Your task to perform on an android device: Add bose quietcomfort 35 to the cart on walmart.com Image 0: 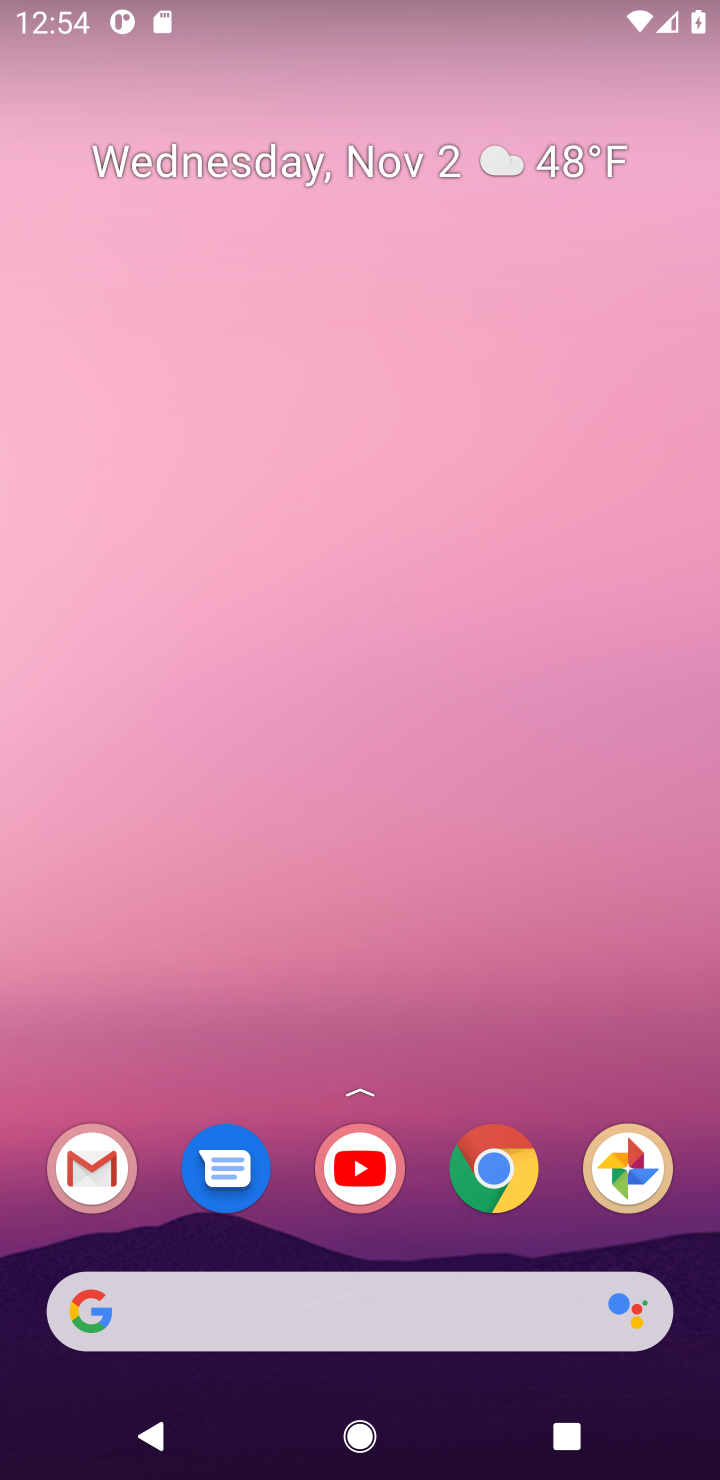
Step 0: click (443, 1294)
Your task to perform on an android device: Add bose quietcomfort 35 to the cart on walmart.com Image 1: 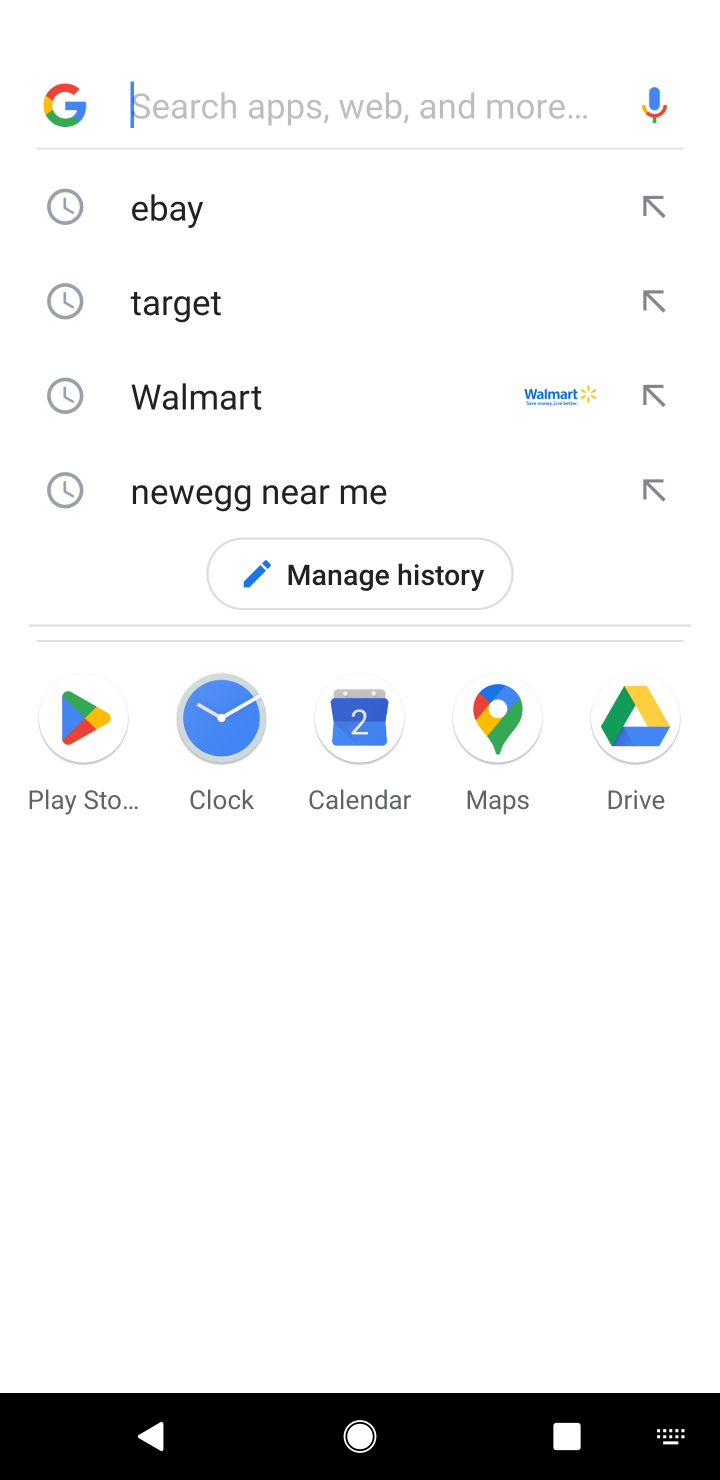
Step 1: type "walmart.com"
Your task to perform on an android device: Add bose quietcomfort 35 to the cart on walmart.com Image 2: 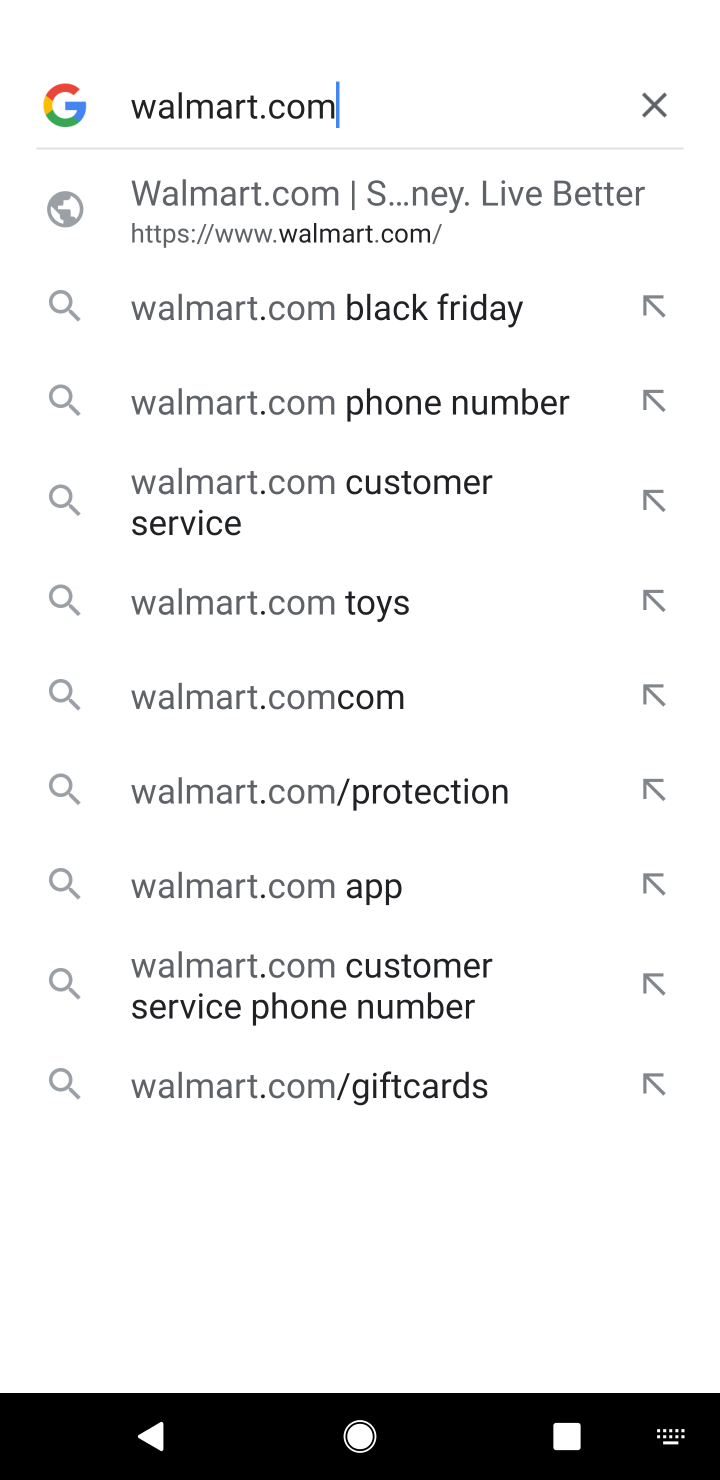
Step 2: click (394, 214)
Your task to perform on an android device: Add bose quietcomfort 35 to the cart on walmart.com Image 3: 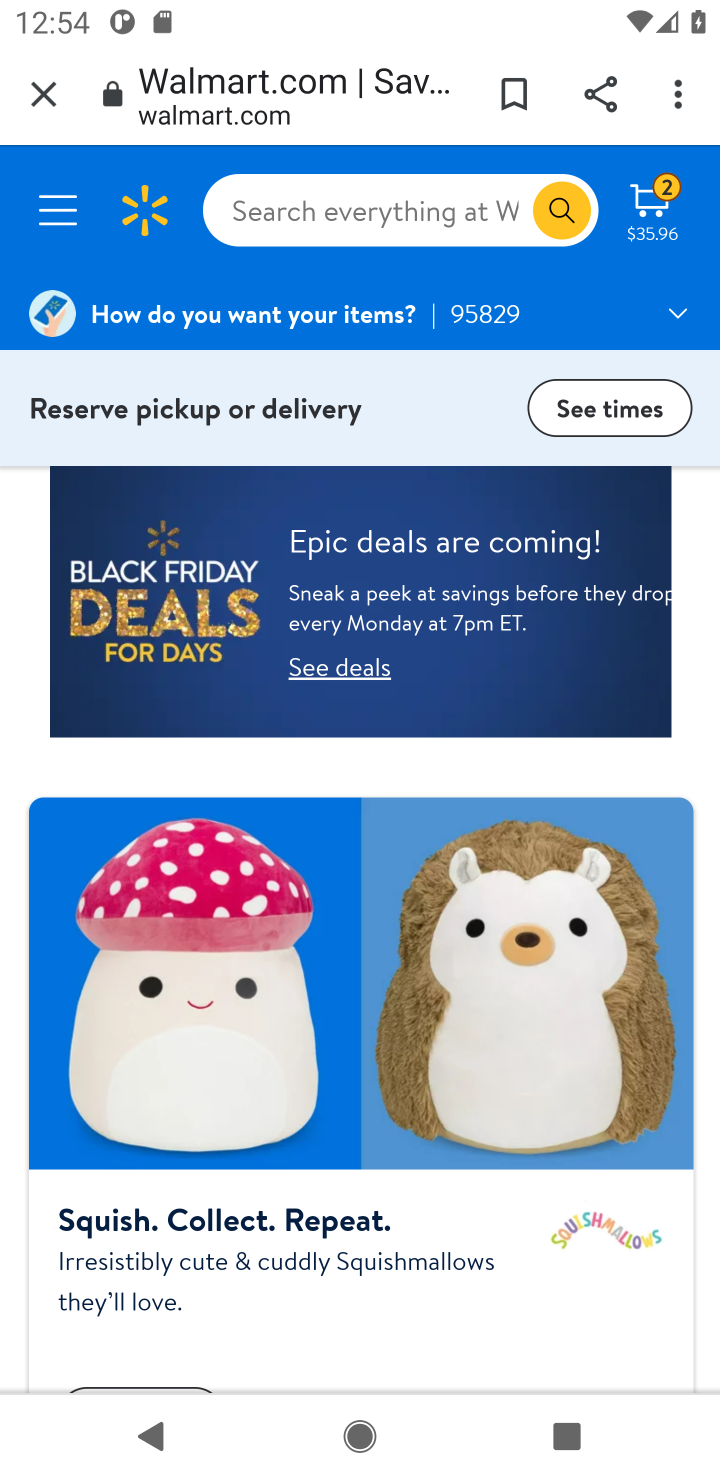
Step 3: click (394, 214)
Your task to perform on an android device: Add bose quietcomfort 35 to the cart on walmart.com Image 4: 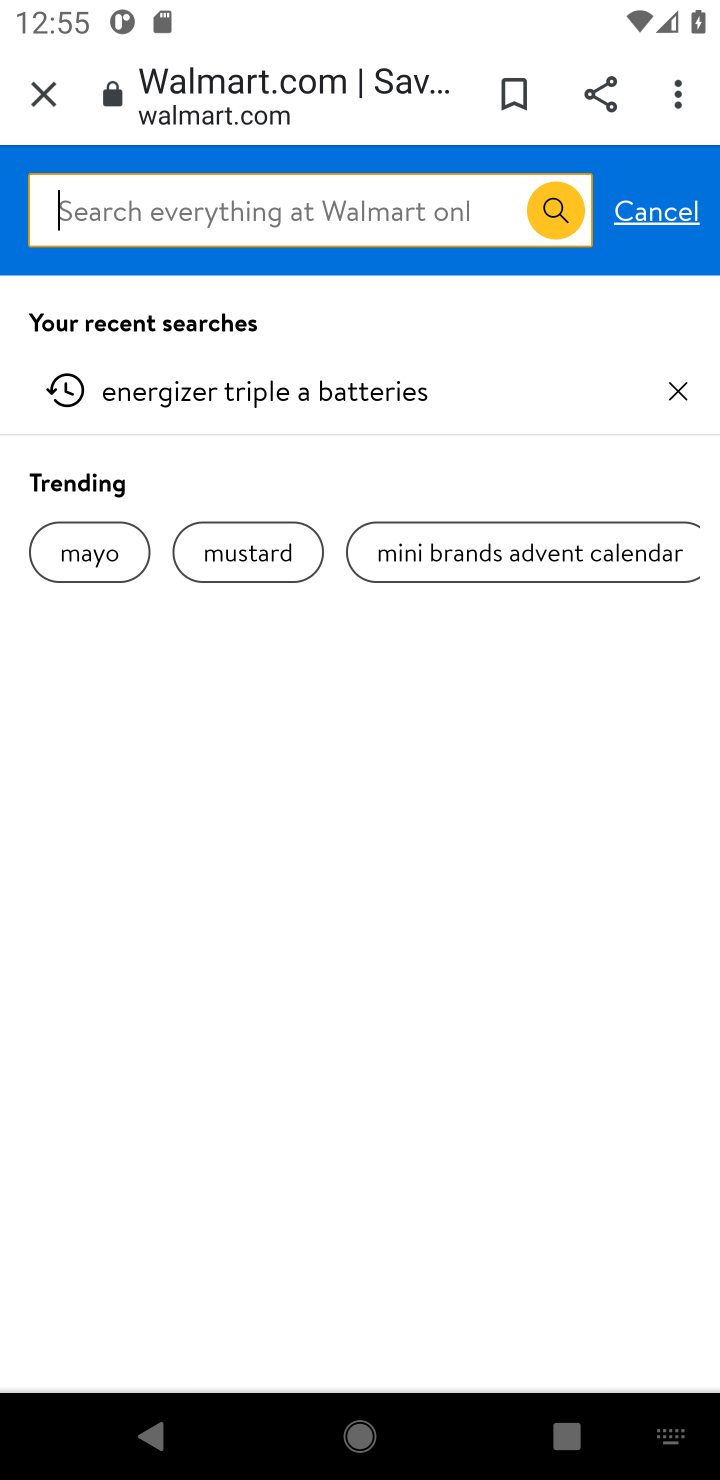
Step 4: type "bose quietcomfort 35 "
Your task to perform on an android device: Add bose quietcomfort 35 to the cart on walmart.com Image 5: 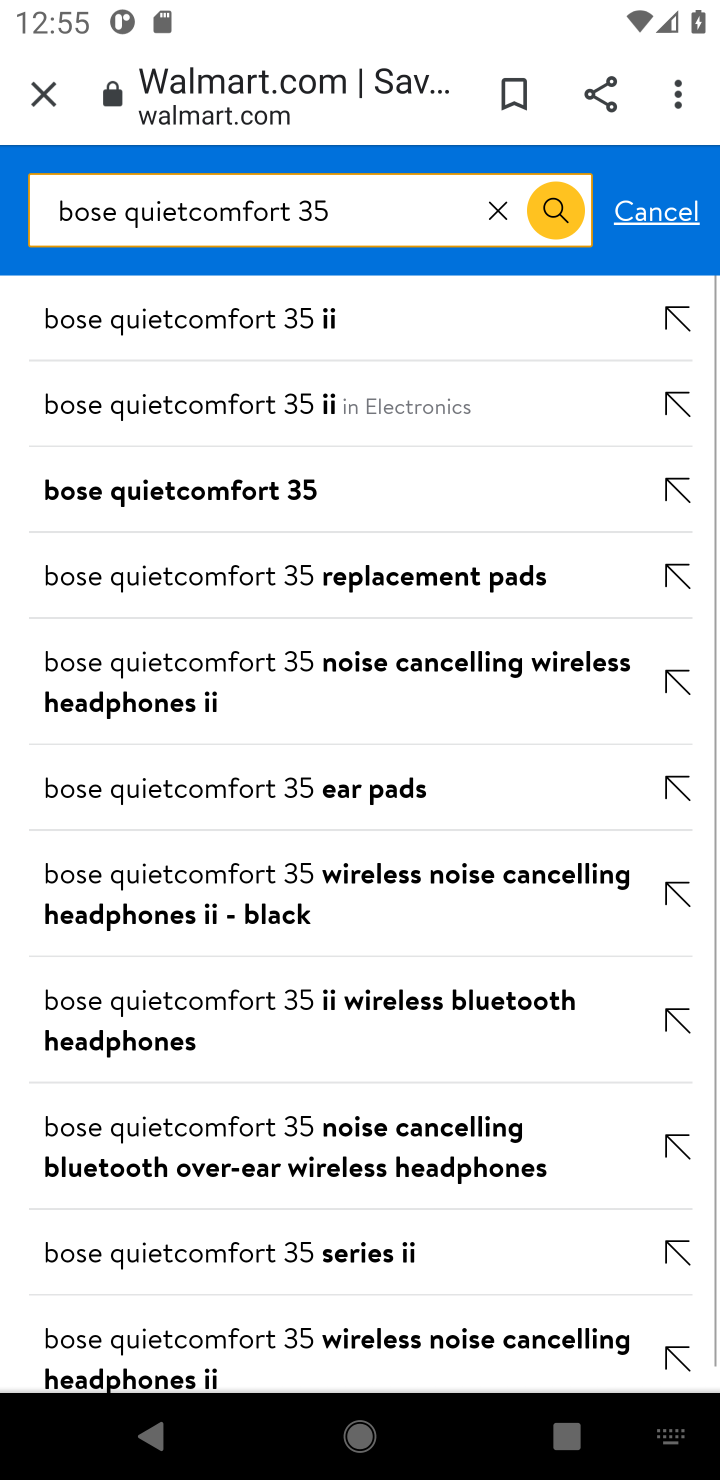
Step 5: click (307, 314)
Your task to perform on an android device: Add bose quietcomfort 35 to the cart on walmart.com Image 6: 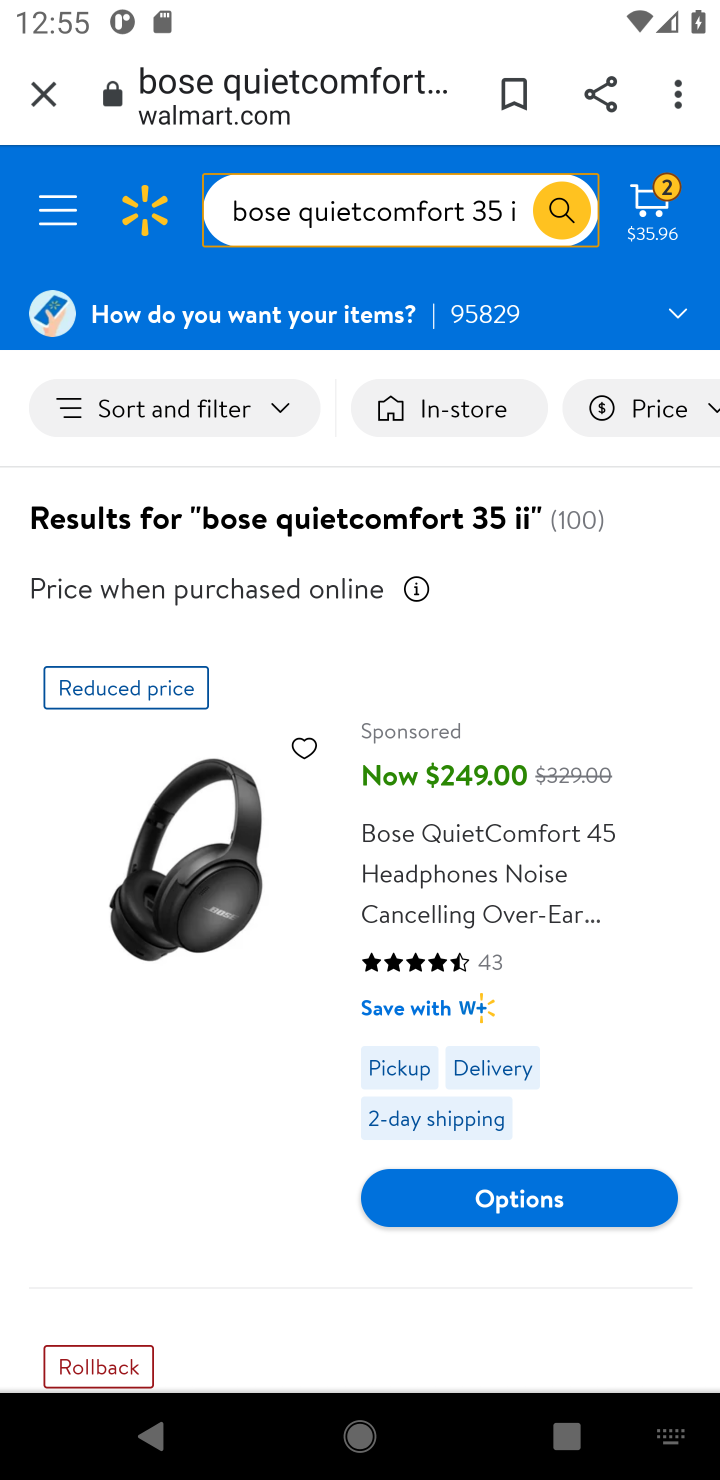
Step 6: click (464, 1206)
Your task to perform on an android device: Add bose quietcomfort 35 to the cart on walmart.com Image 7: 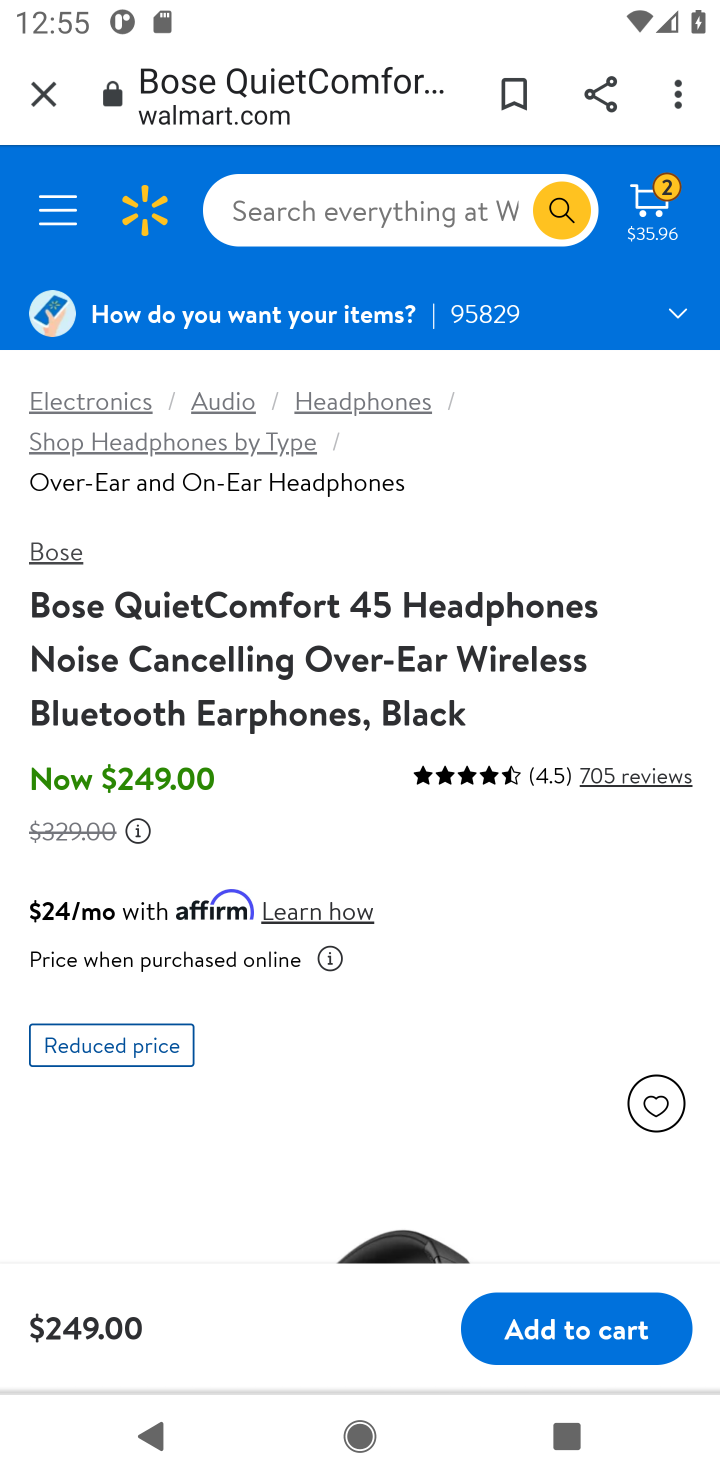
Step 7: click (519, 1326)
Your task to perform on an android device: Add bose quietcomfort 35 to the cart on walmart.com Image 8: 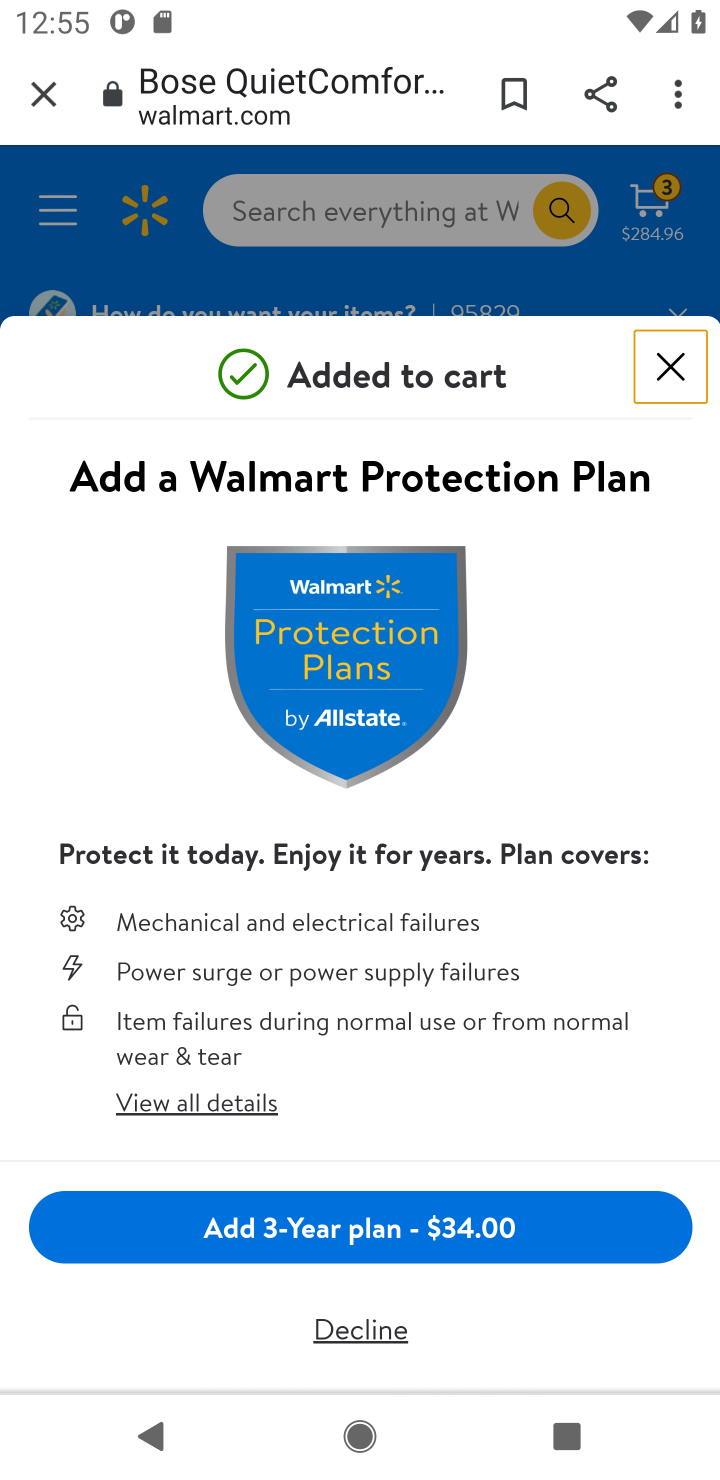
Step 8: click (363, 1337)
Your task to perform on an android device: Add bose quietcomfort 35 to the cart on walmart.com Image 9: 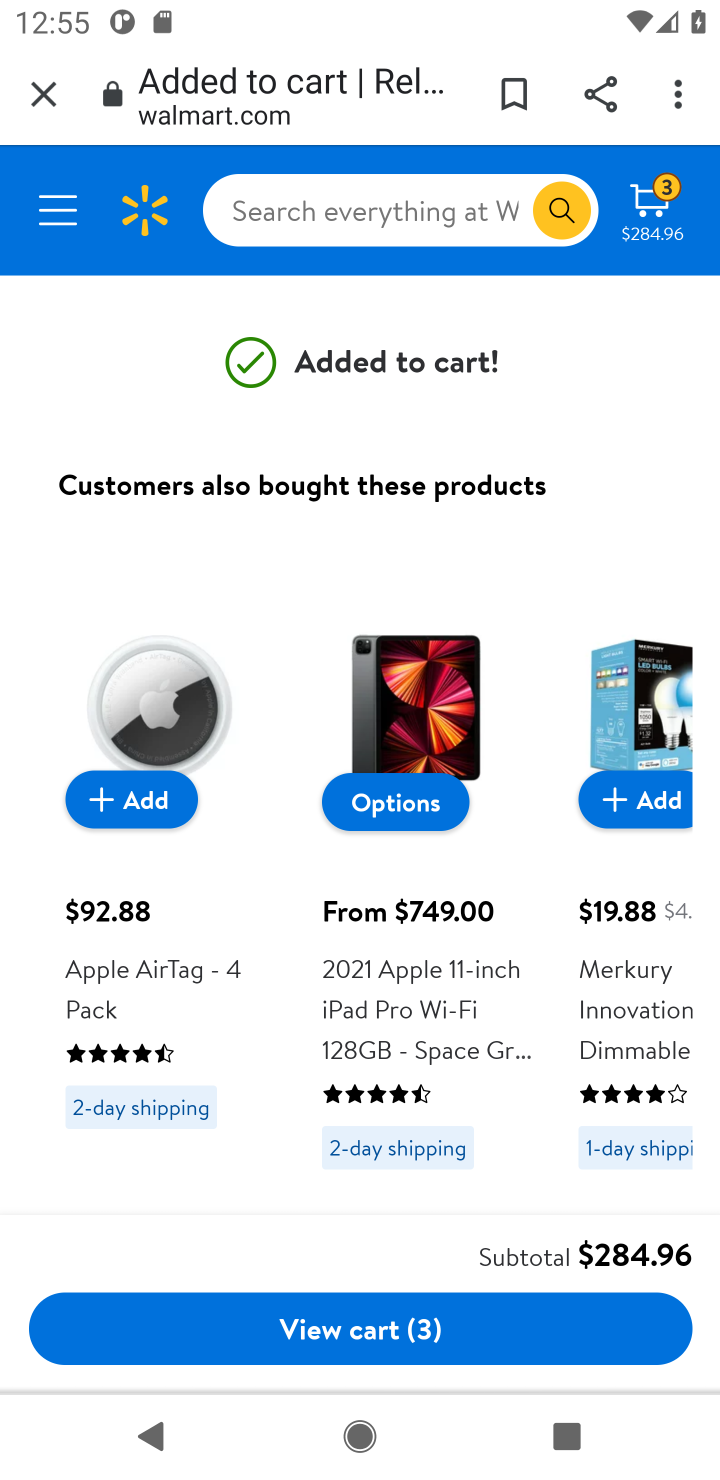
Step 9: task complete